Your task to perform on an android device: What's the weather today? Image 0: 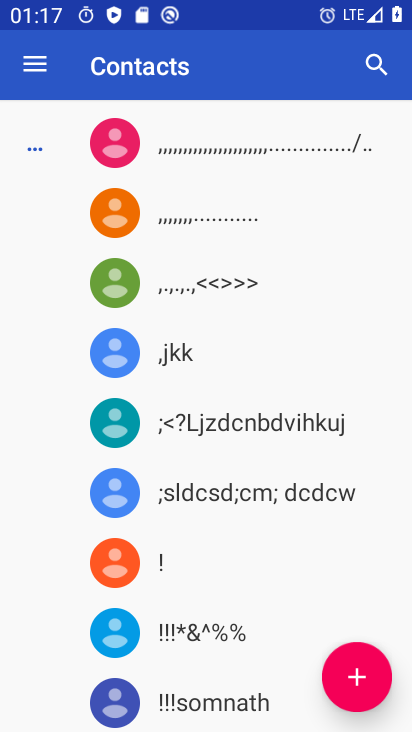
Step 0: press home button
Your task to perform on an android device: What's the weather today? Image 1: 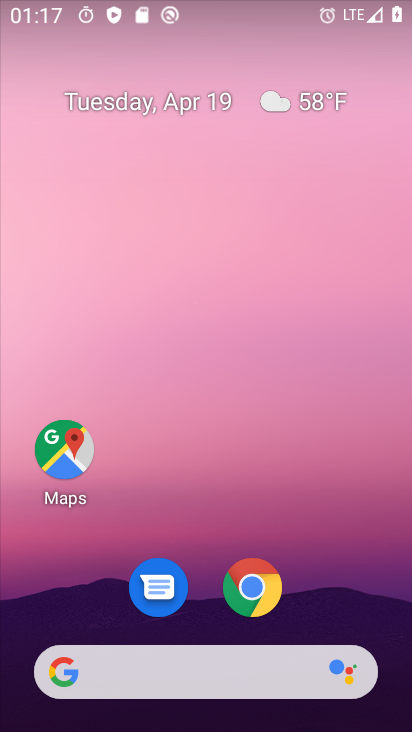
Step 1: drag from (354, 444) to (348, 125)
Your task to perform on an android device: What's the weather today? Image 2: 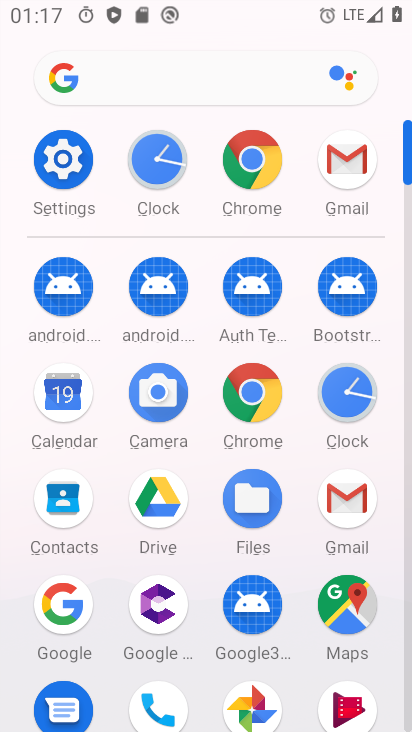
Step 2: click (268, 163)
Your task to perform on an android device: What's the weather today? Image 3: 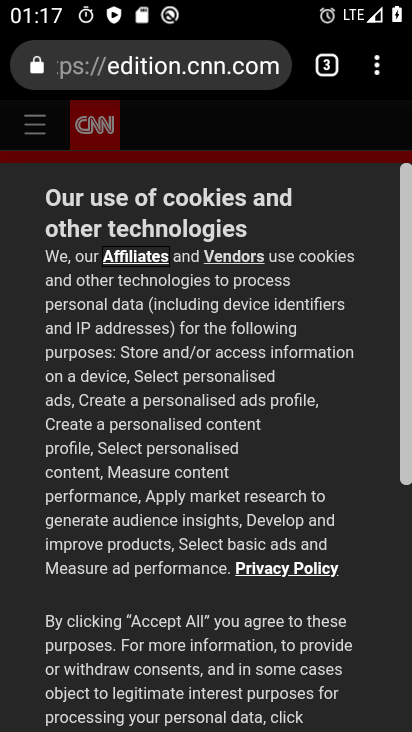
Step 3: click (333, 71)
Your task to perform on an android device: What's the weather today? Image 4: 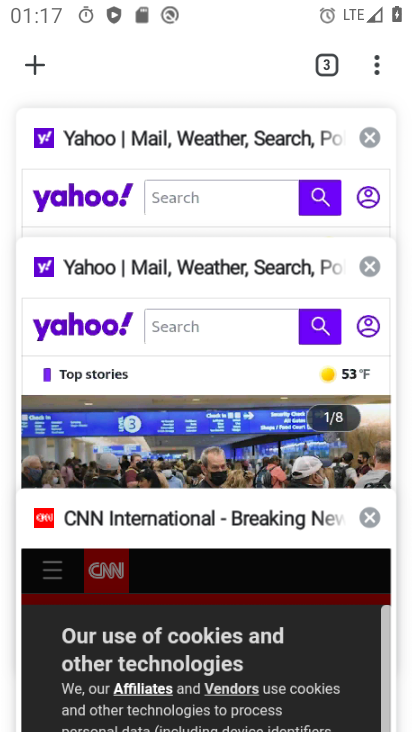
Step 4: click (31, 67)
Your task to perform on an android device: What's the weather today? Image 5: 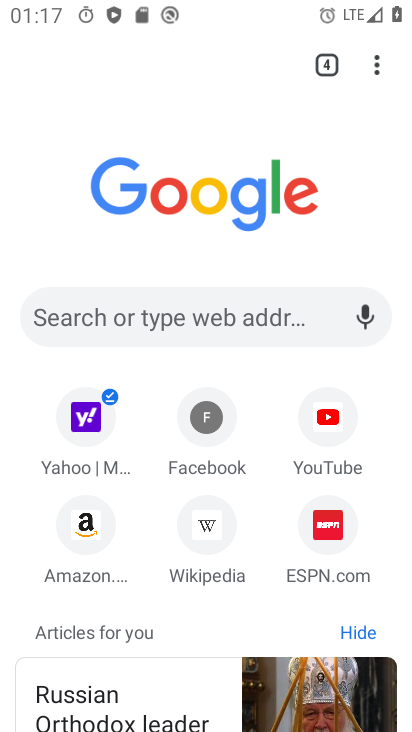
Step 5: click (147, 324)
Your task to perform on an android device: What's the weather today? Image 6: 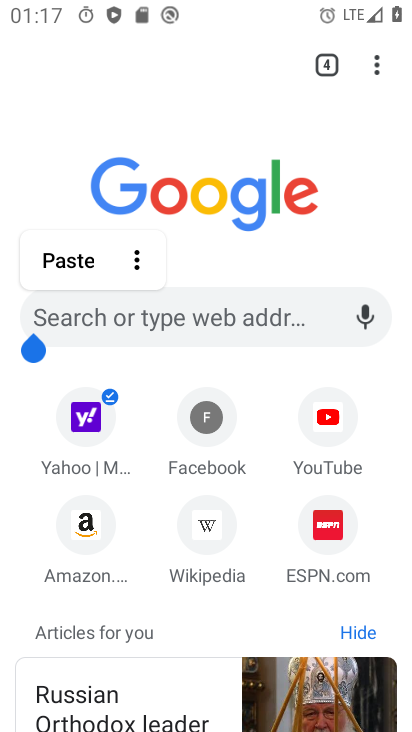
Step 6: click (241, 298)
Your task to perform on an android device: What's the weather today? Image 7: 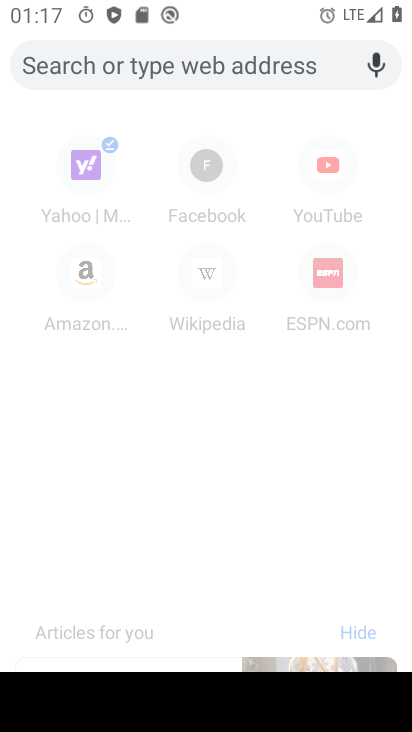
Step 7: type "what's the weather today"
Your task to perform on an android device: What's the weather today? Image 8: 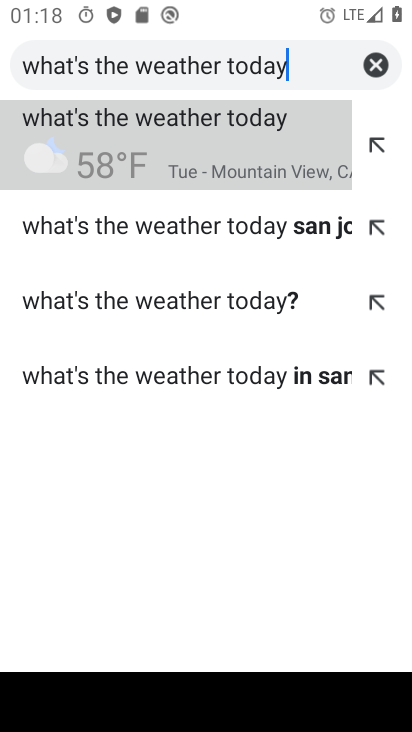
Step 8: click (92, 144)
Your task to perform on an android device: What's the weather today? Image 9: 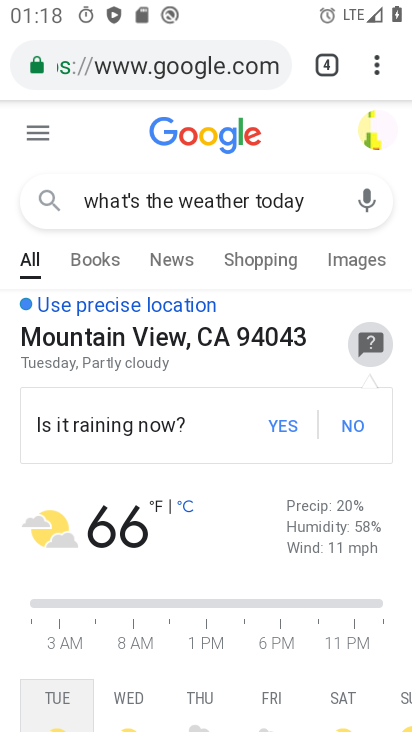
Step 9: task complete